Your task to perform on an android device: What's a good restaurant in Denver? Image 0: 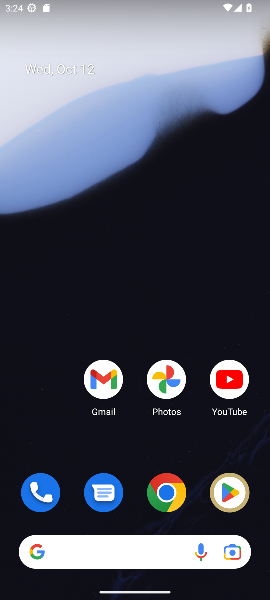
Step 0: click (167, 506)
Your task to perform on an android device: What's a good restaurant in Denver? Image 1: 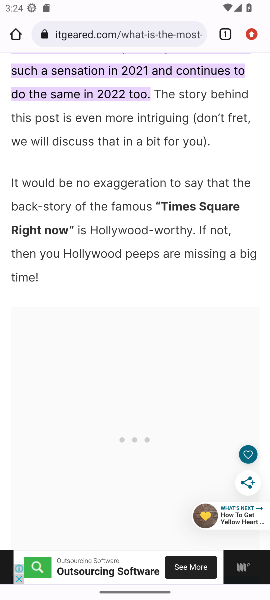
Step 1: click (94, 37)
Your task to perform on an android device: What's a good restaurant in Denver? Image 2: 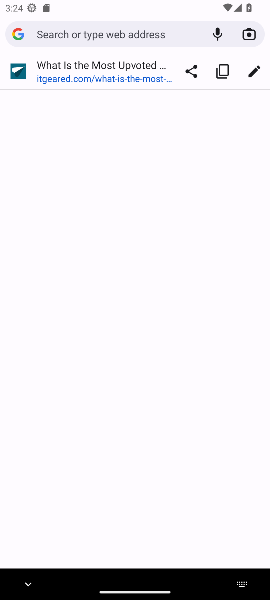
Step 2: type "a good restaurant in Denver"
Your task to perform on an android device: What's a good restaurant in Denver? Image 3: 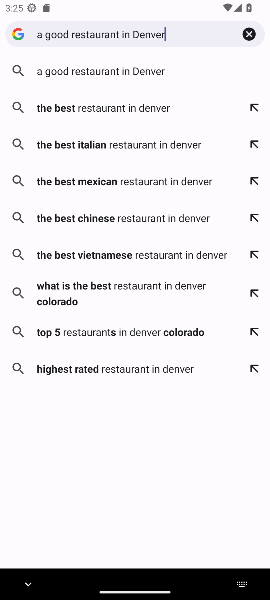
Step 3: click (97, 74)
Your task to perform on an android device: What's a good restaurant in Denver? Image 4: 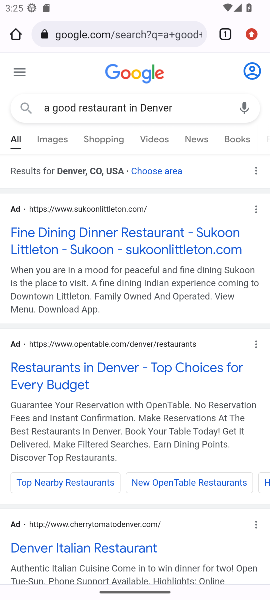
Step 4: click (63, 381)
Your task to perform on an android device: What's a good restaurant in Denver? Image 5: 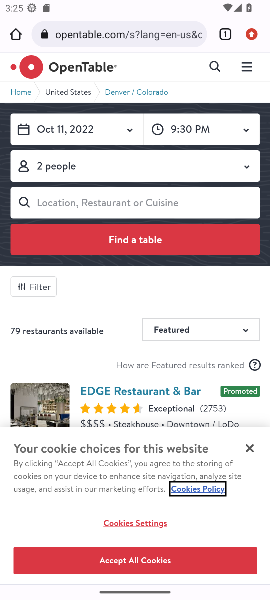
Step 5: task complete